Your task to perform on an android device: Go to Amazon Image 0: 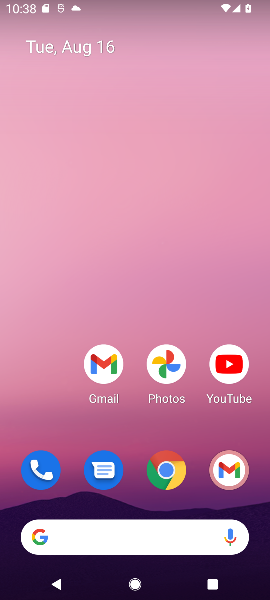
Step 0: click (166, 469)
Your task to perform on an android device: Go to Amazon Image 1: 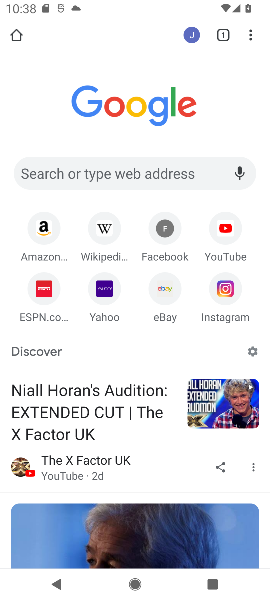
Step 1: click (43, 224)
Your task to perform on an android device: Go to Amazon Image 2: 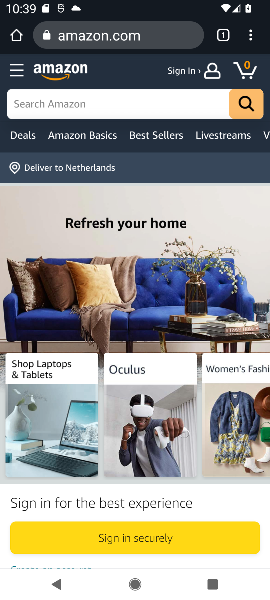
Step 2: task complete